Your task to perform on an android device: Open eBay Image 0: 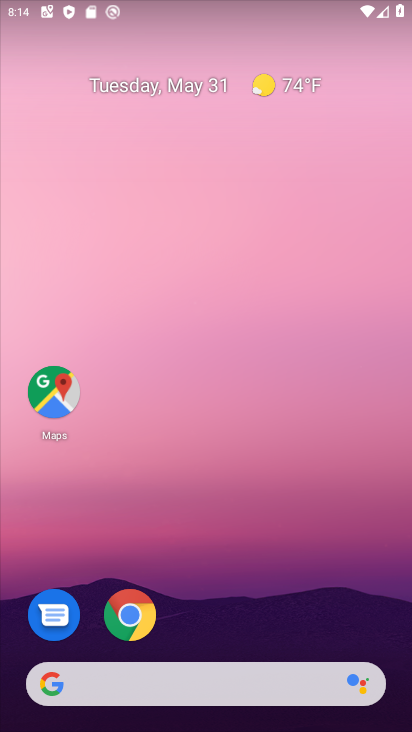
Step 0: click (131, 620)
Your task to perform on an android device: Open eBay Image 1: 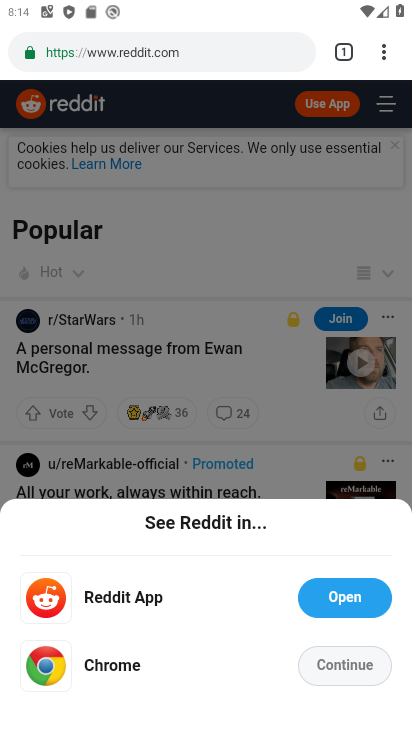
Step 1: drag from (383, 60) to (305, 105)
Your task to perform on an android device: Open eBay Image 2: 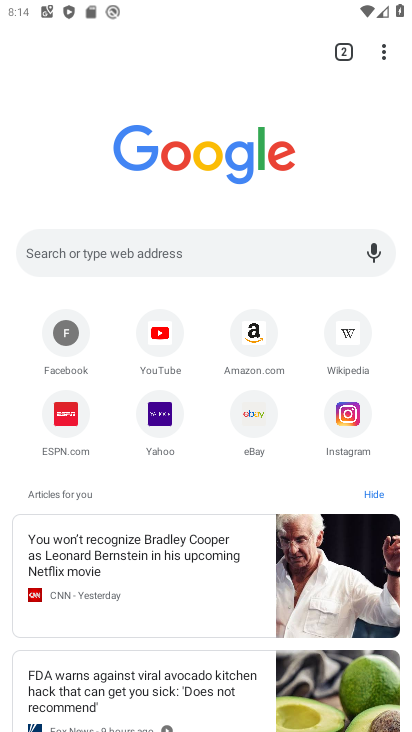
Step 2: click (261, 416)
Your task to perform on an android device: Open eBay Image 3: 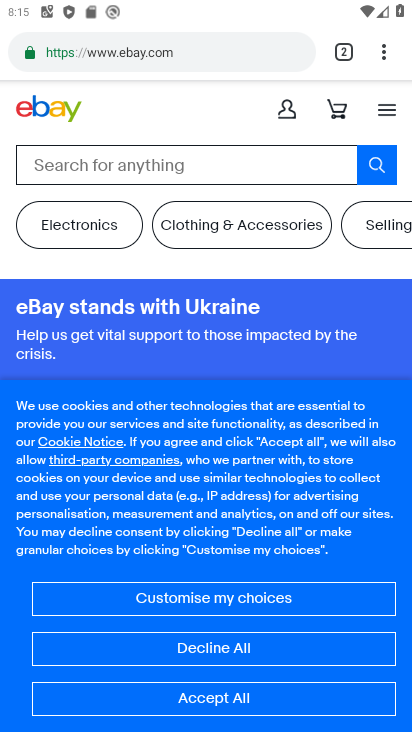
Step 3: task complete